Your task to perform on an android device: change the clock display to digital Image 0: 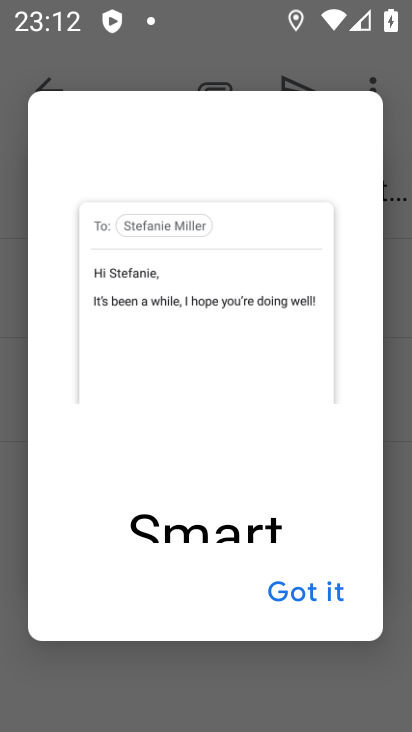
Step 0: press home button
Your task to perform on an android device: change the clock display to digital Image 1: 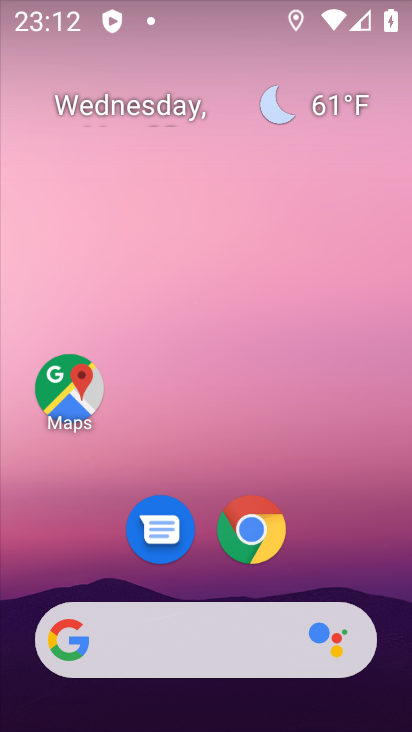
Step 1: drag from (364, 558) to (393, 220)
Your task to perform on an android device: change the clock display to digital Image 2: 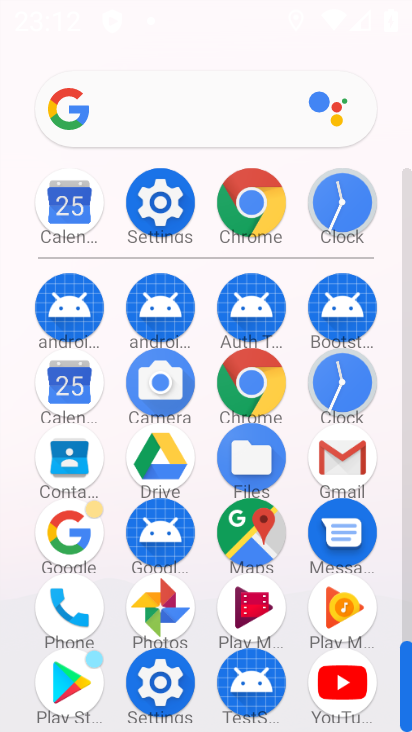
Step 2: click (353, 387)
Your task to perform on an android device: change the clock display to digital Image 3: 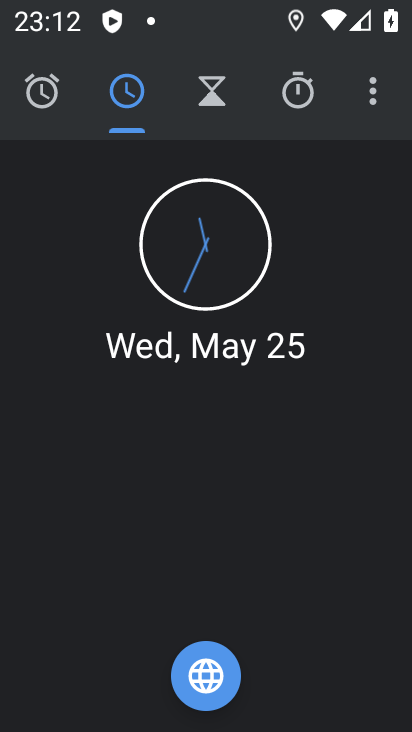
Step 3: click (372, 102)
Your task to perform on an android device: change the clock display to digital Image 4: 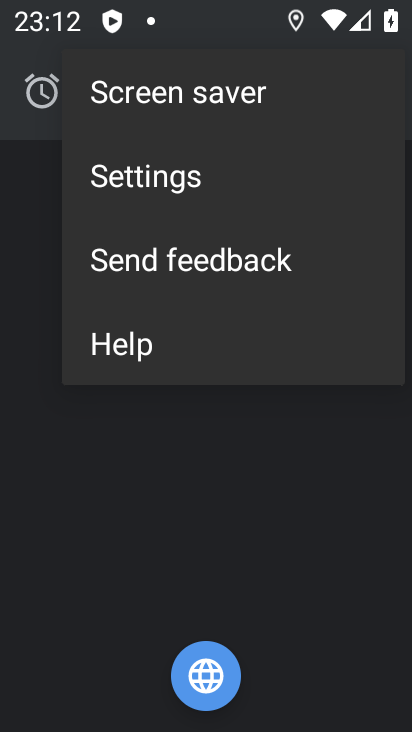
Step 4: click (201, 183)
Your task to perform on an android device: change the clock display to digital Image 5: 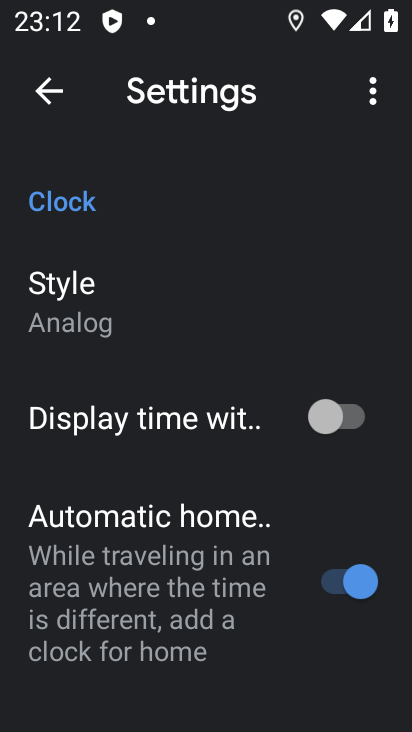
Step 5: click (98, 329)
Your task to perform on an android device: change the clock display to digital Image 6: 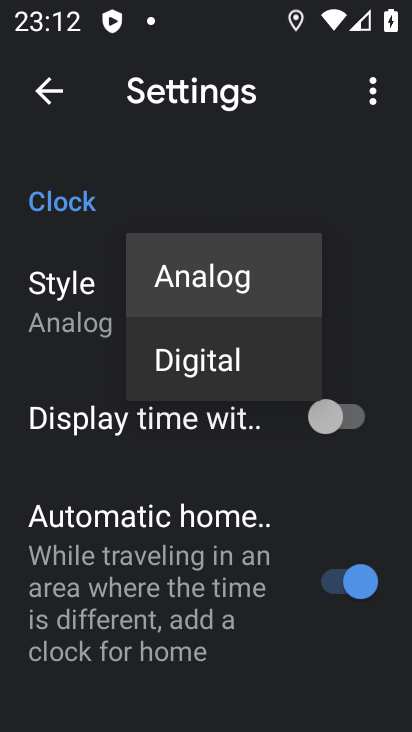
Step 6: click (174, 360)
Your task to perform on an android device: change the clock display to digital Image 7: 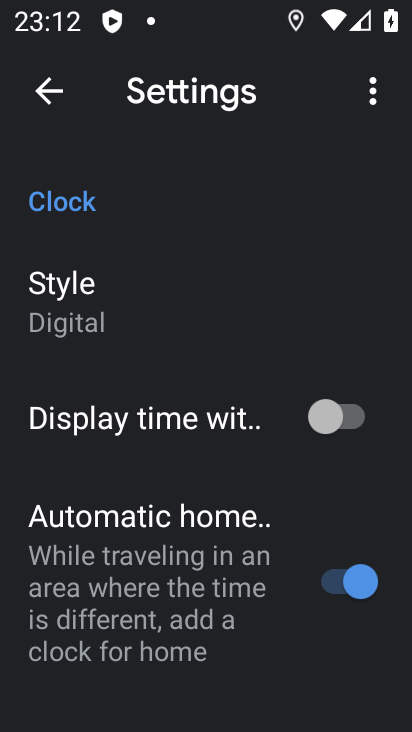
Step 7: task complete